Your task to perform on an android device: Turn on the flashlight Image 0: 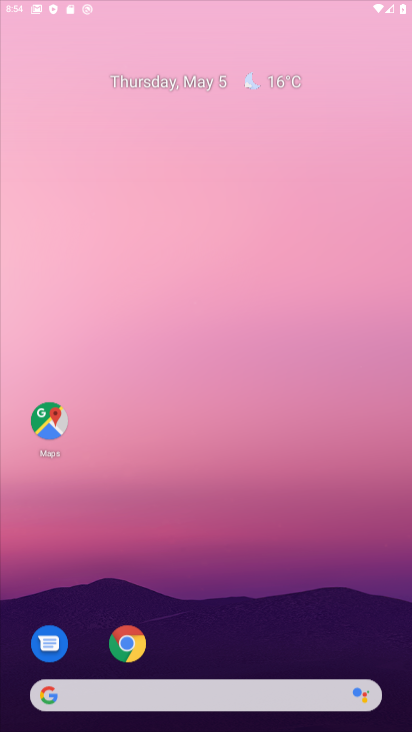
Step 0: drag from (191, 657) to (411, 10)
Your task to perform on an android device: Turn on the flashlight Image 1: 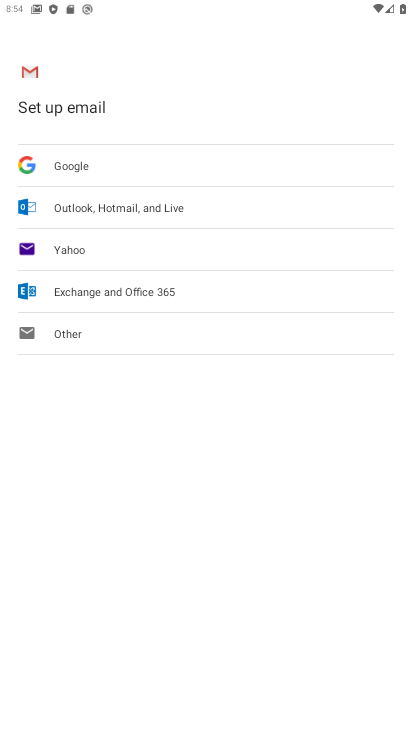
Step 1: task complete